Your task to perform on an android device: Go to notification settings Image 0: 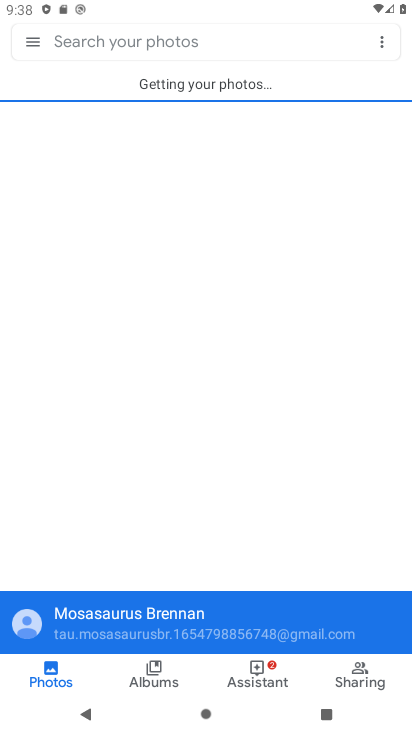
Step 0: press back button
Your task to perform on an android device: Go to notification settings Image 1: 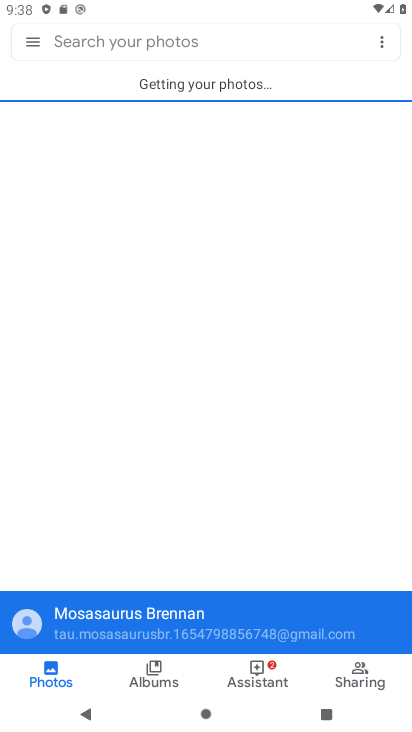
Step 1: press back button
Your task to perform on an android device: Go to notification settings Image 2: 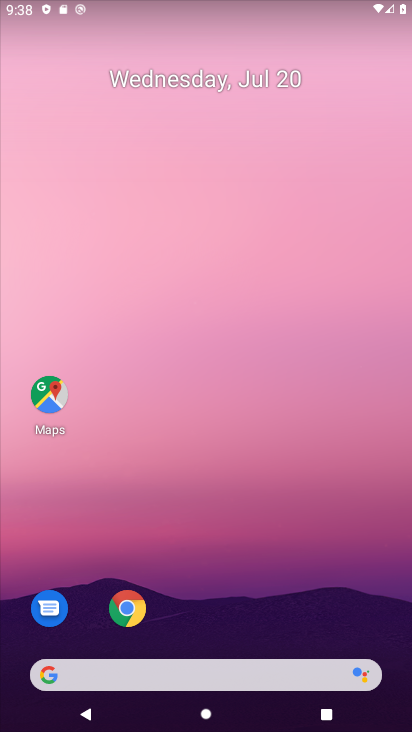
Step 2: press home button
Your task to perform on an android device: Go to notification settings Image 3: 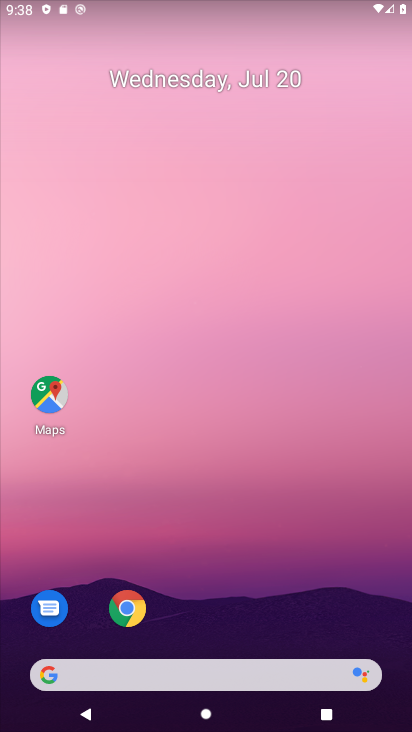
Step 3: drag from (254, 595) to (206, 186)
Your task to perform on an android device: Go to notification settings Image 4: 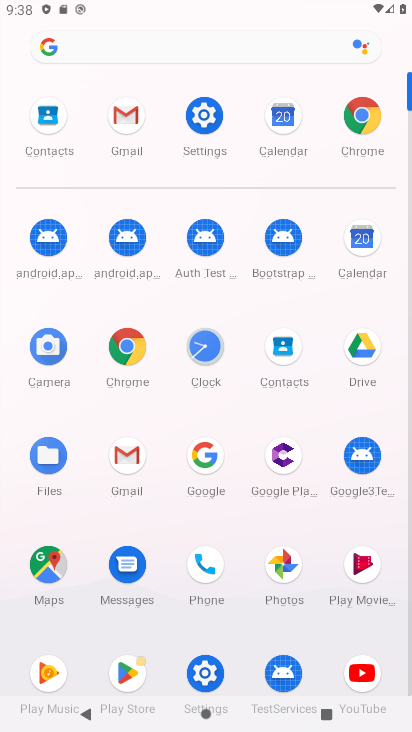
Step 4: click (200, 115)
Your task to perform on an android device: Go to notification settings Image 5: 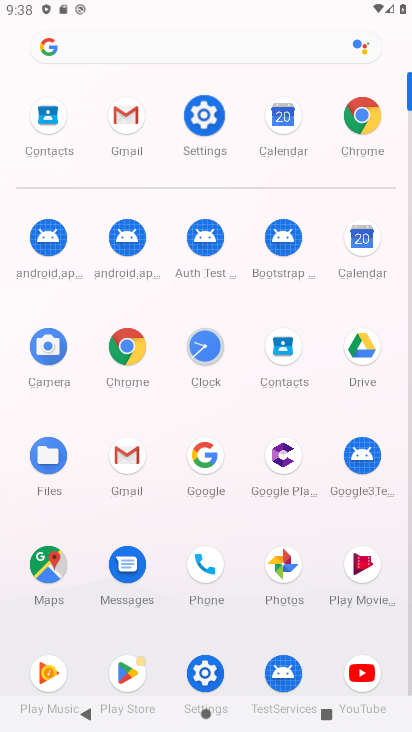
Step 5: click (204, 117)
Your task to perform on an android device: Go to notification settings Image 6: 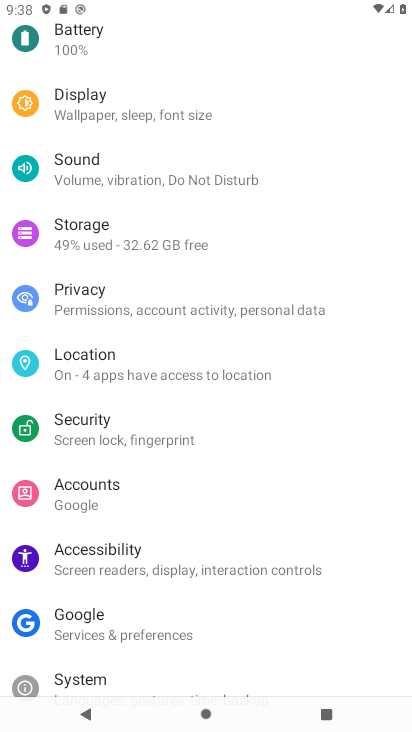
Step 6: drag from (163, 550) to (187, 167)
Your task to perform on an android device: Go to notification settings Image 7: 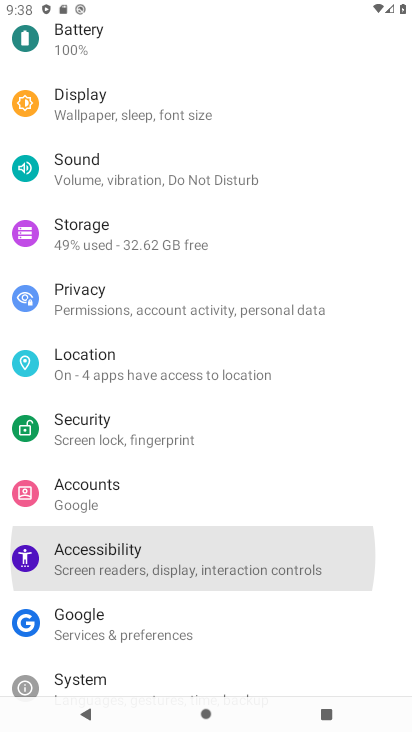
Step 7: drag from (174, 506) to (172, 269)
Your task to perform on an android device: Go to notification settings Image 8: 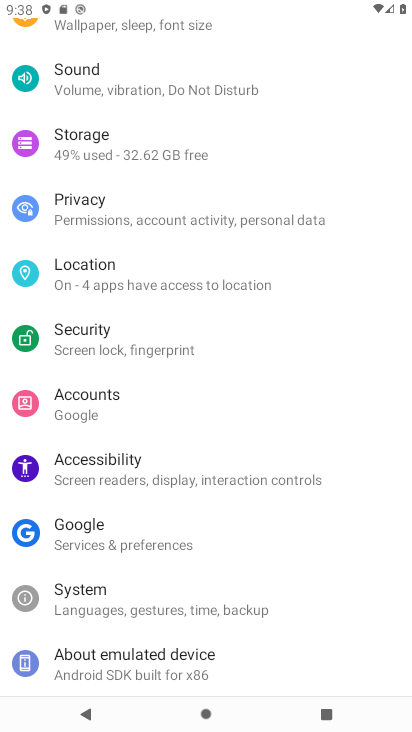
Step 8: drag from (120, 561) to (120, 185)
Your task to perform on an android device: Go to notification settings Image 9: 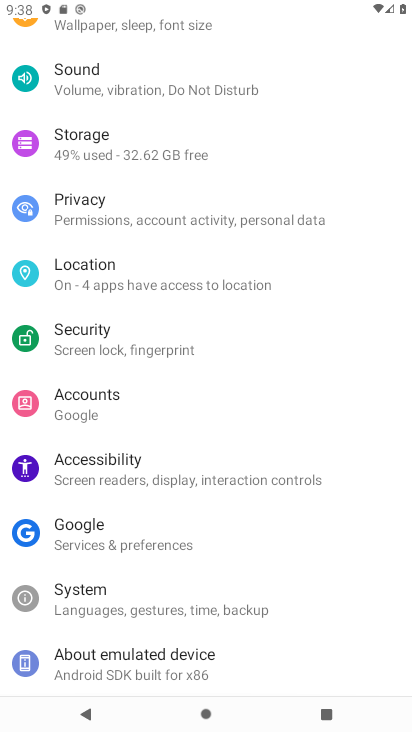
Step 9: drag from (193, 261) to (193, 133)
Your task to perform on an android device: Go to notification settings Image 10: 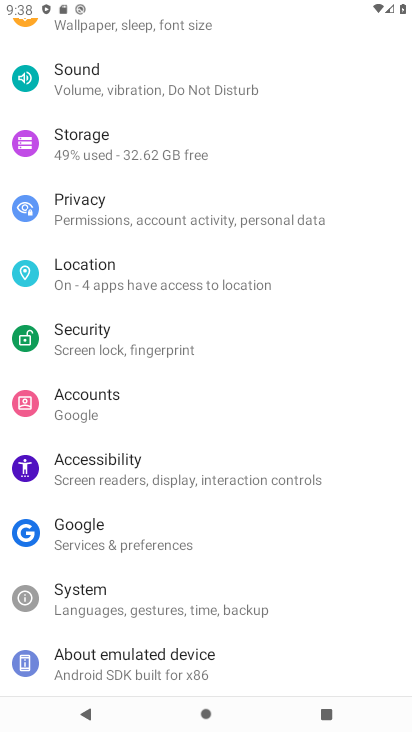
Step 10: drag from (100, 95) to (169, 587)
Your task to perform on an android device: Go to notification settings Image 11: 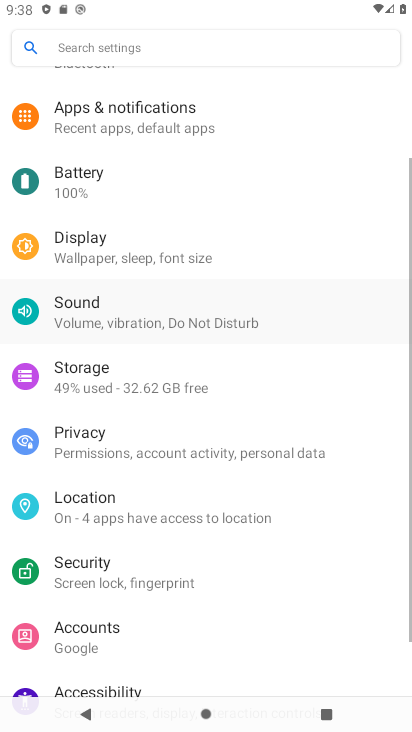
Step 11: drag from (98, 232) to (152, 563)
Your task to perform on an android device: Go to notification settings Image 12: 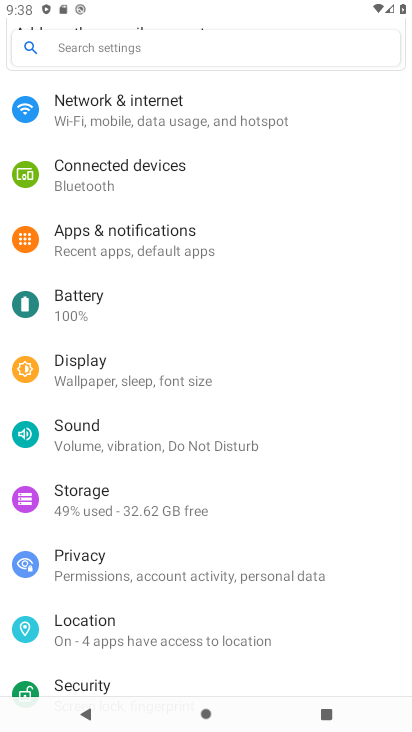
Step 12: click (114, 249)
Your task to perform on an android device: Go to notification settings Image 13: 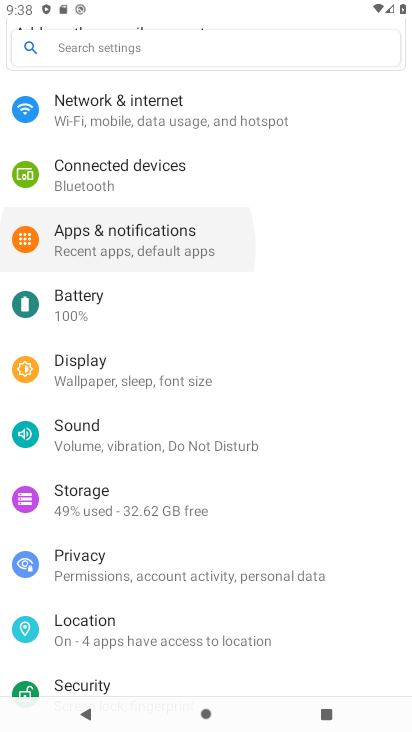
Step 13: click (125, 234)
Your task to perform on an android device: Go to notification settings Image 14: 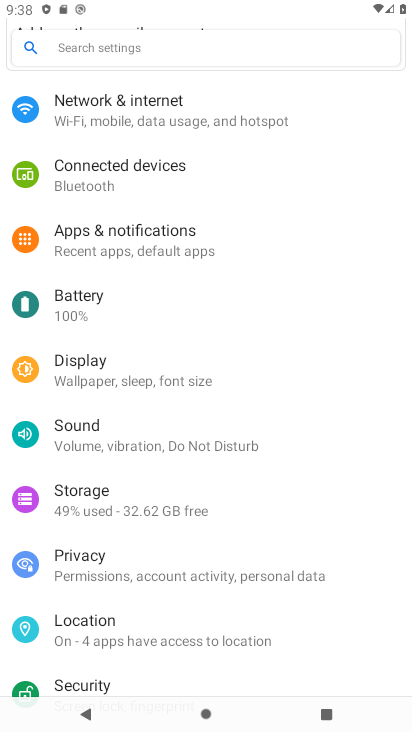
Step 14: click (143, 238)
Your task to perform on an android device: Go to notification settings Image 15: 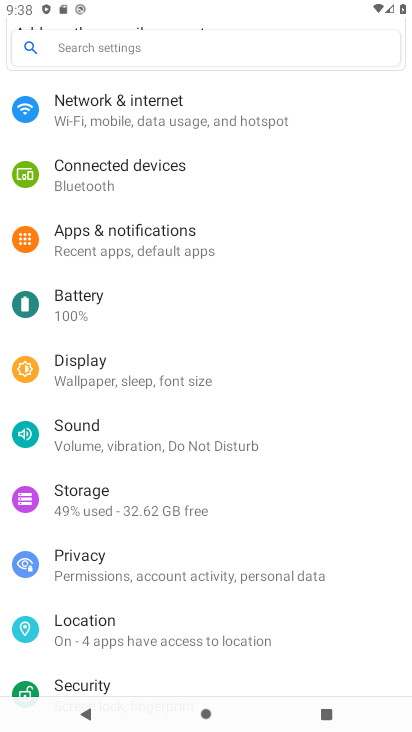
Step 15: click (145, 237)
Your task to perform on an android device: Go to notification settings Image 16: 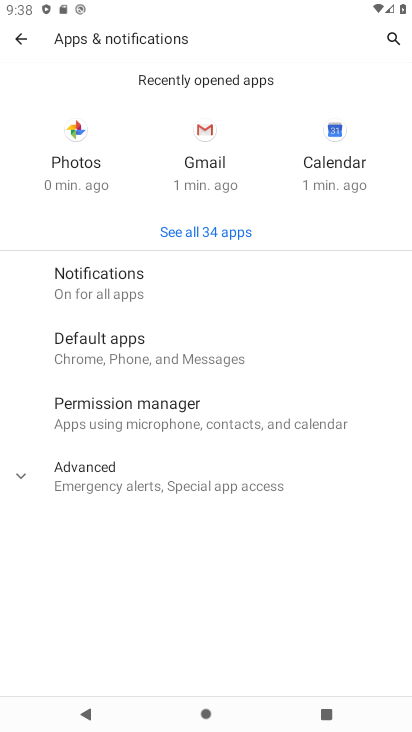
Step 16: click (100, 290)
Your task to perform on an android device: Go to notification settings Image 17: 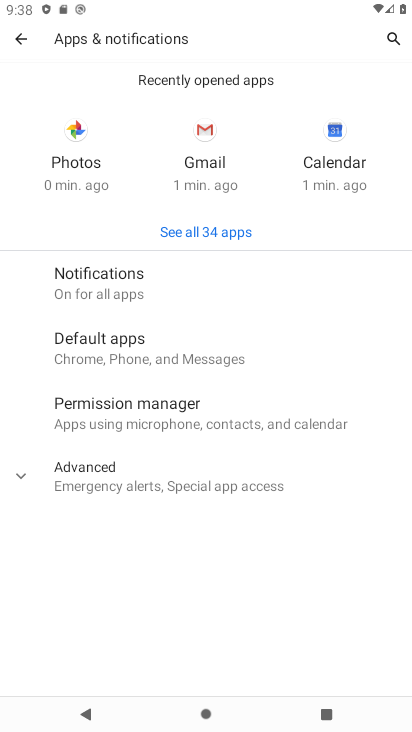
Step 17: click (109, 284)
Your task to perform on an android device: Go to notification settings Image 18: 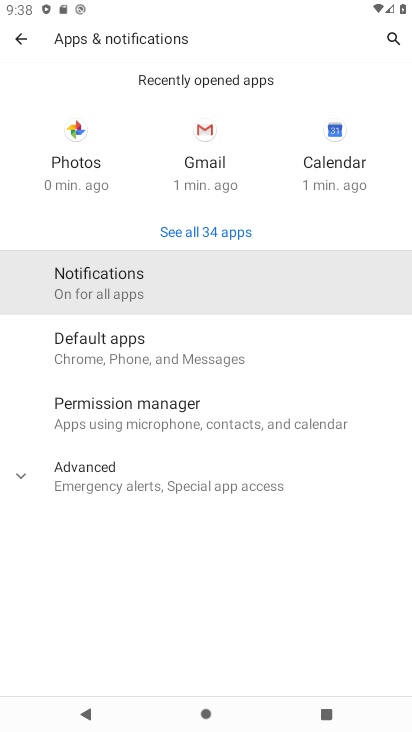
Step 18: click (109, 284)
Your task to perform on an android device: Go to notification settings Image 19: 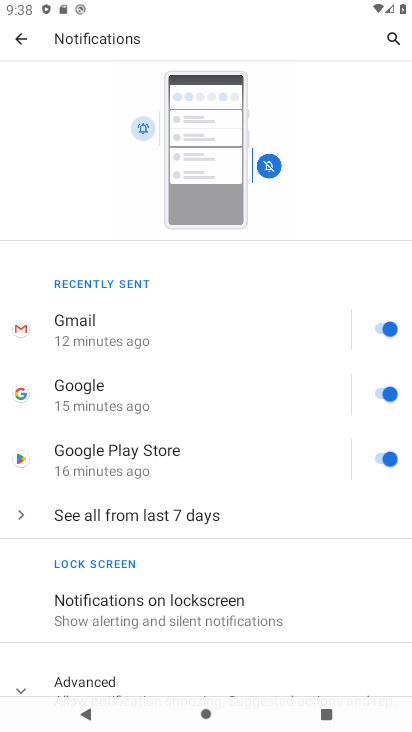
Step 19: task complete